Your task to perform on an android device: install app "Pluto TV - Live TV and Movies" Image 0: 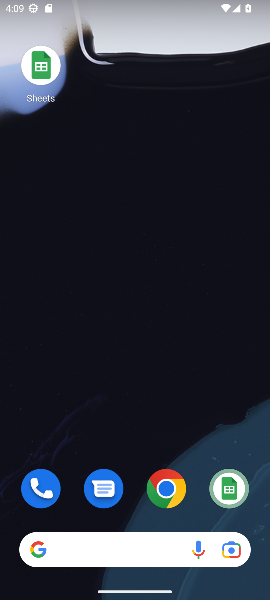
Step 0: drag from (132, 519) to (125, 13)
Your task to perform on an android device: install app "Pluto TV - Live TV and Movies" Image 1: 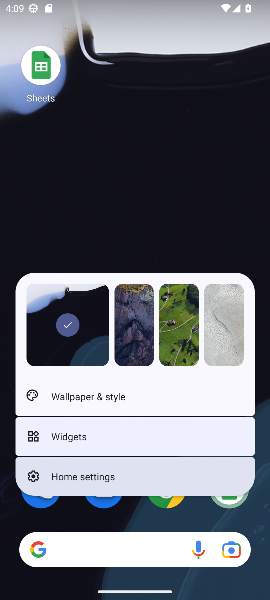
Step 1: click (162, 220)
Your task to perform on an android device: install app "Pluto TV - Live TV and Movies" Image 2: 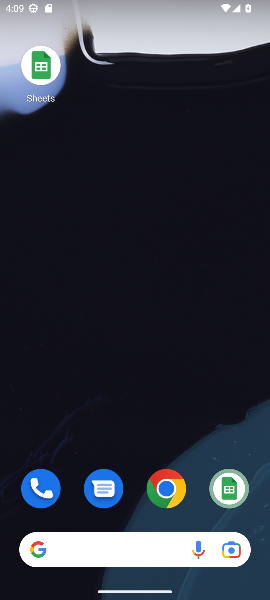
Step 2: drag from (140, 517) to (182, 6)
Your task to perform on an android device: install app "Pluto TV - Live TV and Movies" Image 3: 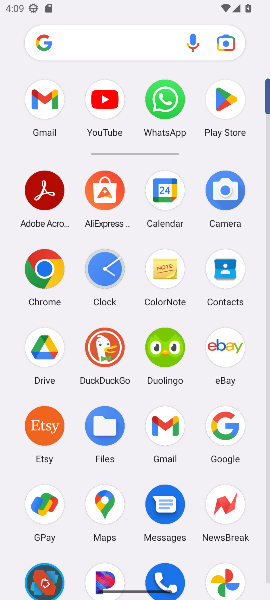
Step 3: click (222, 92)
Your task to perform on an android device: install app "Pluto TV - Live TV and Movies" Image 4: 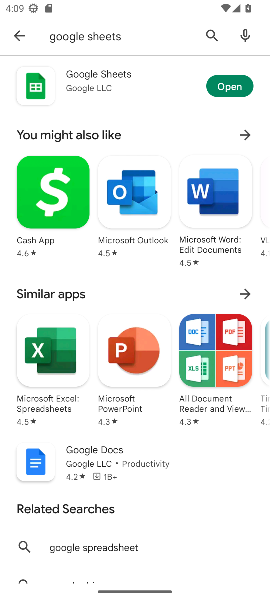
Step 4: click (216, 41)
Your task to perform on an android device: install app "Pluto TV - Live TV and Movies" Image 5: 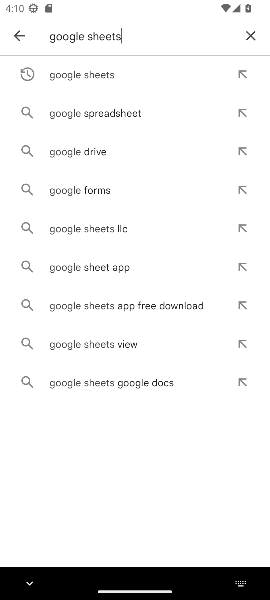
Step 5: click (253, 31)
Your task to perform on an android device: install app "Pluto TV - Live TV and Movies" Image 6: 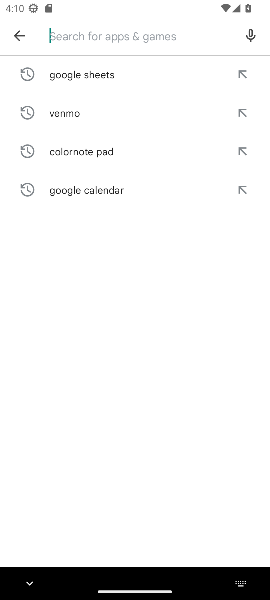
Step 6: type "pluto"
Your task to perform on an android device: install app "Pluto TV - Live TV and Movies" Image 7: 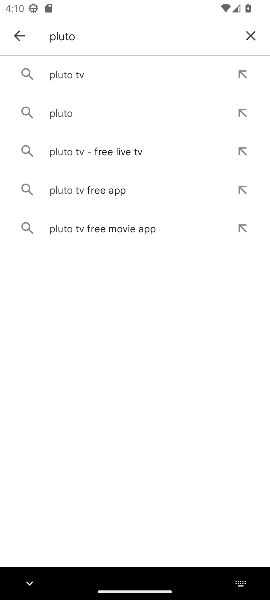
Step 7: click (83, 74)
Your task to perform on an android device: install app "Pluto TV - Live TV and Movies" Image 8: 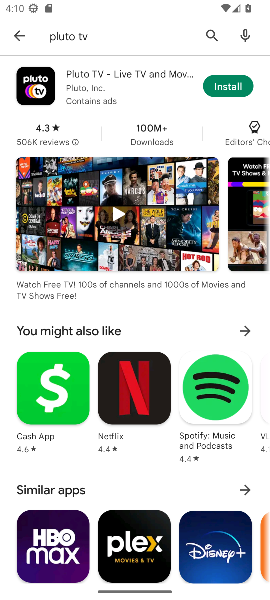
Step 8: click (230, 77)
Your task to perform on an android device: install app "Pluto TV - Live TV and Movies" Image 9: 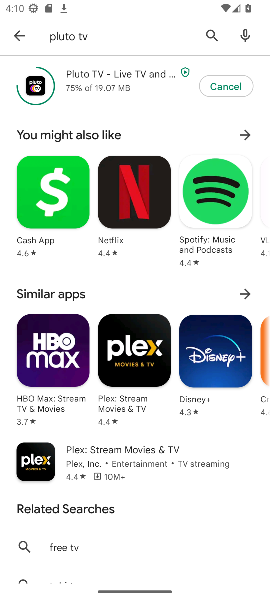
Step 9: task complete